Your task to perform on an android device: toggle javascript in the chrome app Image 0: 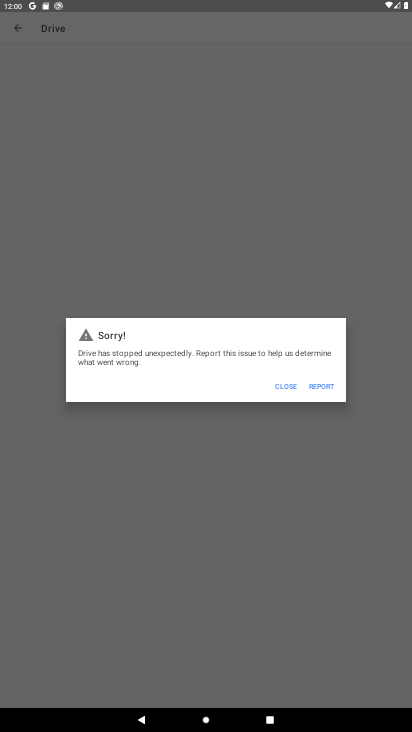
Step 0: press home button
Your task to perform on an android device: toggle javascript in the chrome app Image 1: 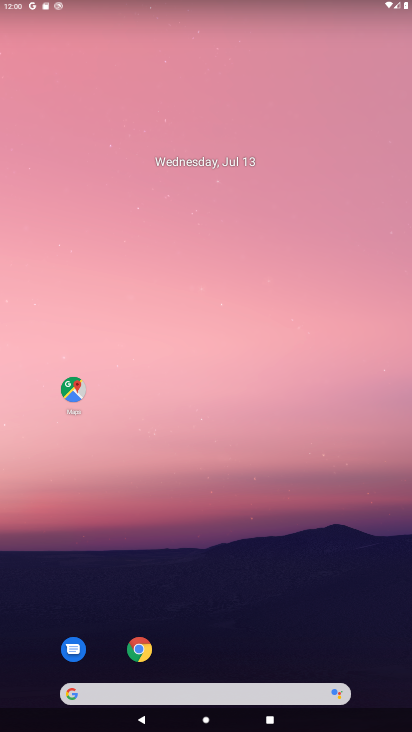
Step 1: click (329, 290)
Your task to perform on an android device: toggle javascript in the chrome app Image 2: 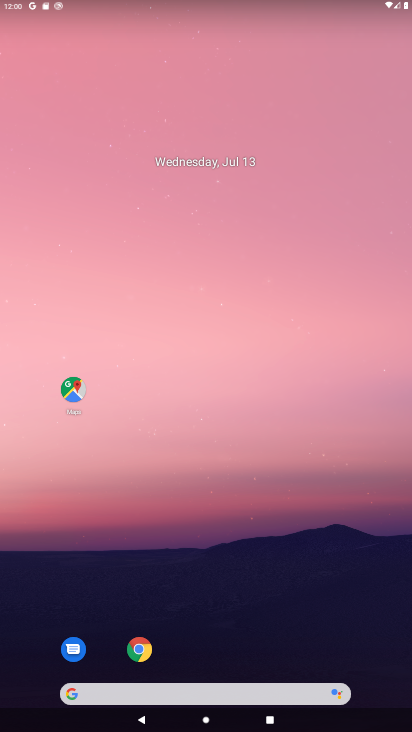
Step 2: drag from (184, 642) to (287, 82)
Your task to perform on an android device: toggle javascript in the chrome app Image 3: 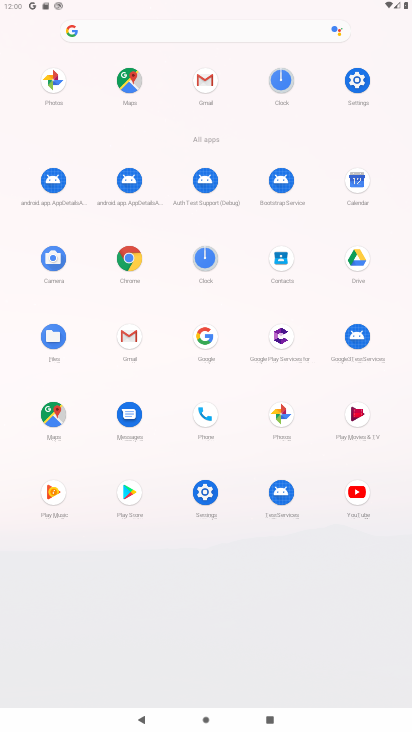
Step 3: click (134, 256)
Your task to perform on an android device: toggle javascript in the chrome app Image 4: 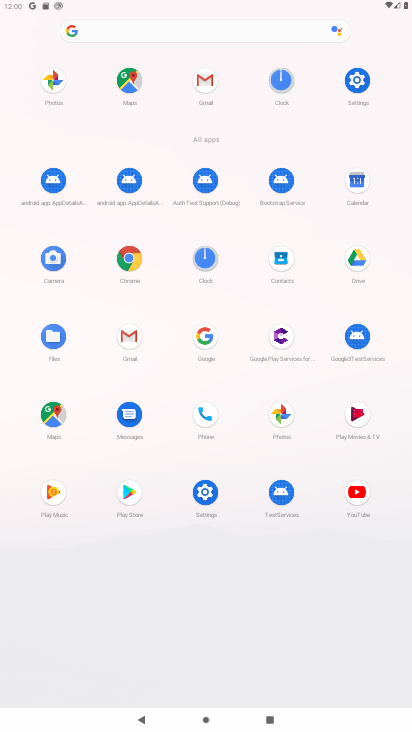
Step 4: click (123, 262)
Your task to perform on an android device: toggle javascript in the chrome app Image 5: 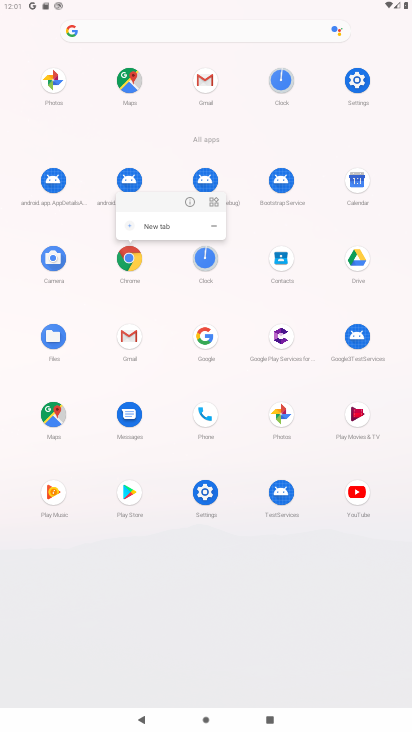
Step 5: click (183, 200)
Your task to perform on an android device: toggle javascript in the chrome app Image 6: 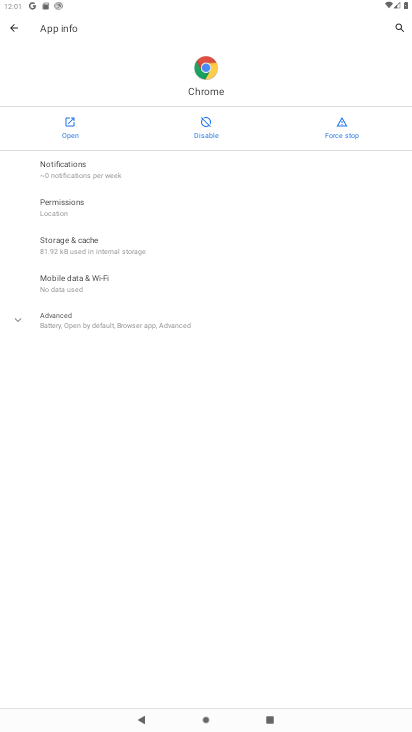
Step 6: click (71, 126)
Your task to perform on an android device: toggle javascript in the chrome app Image 7: 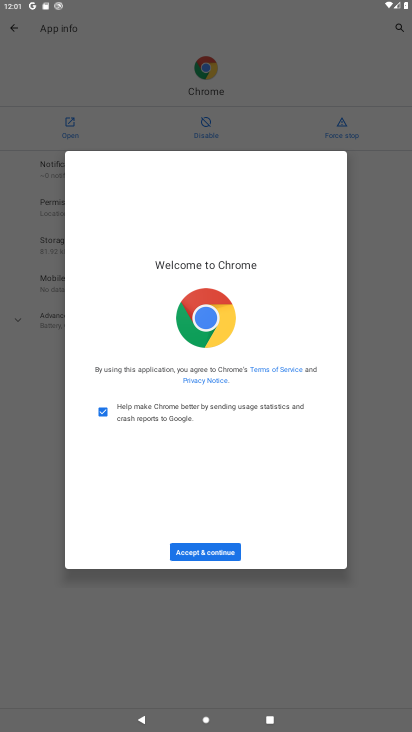
Step 7: press home button
Your task to perform on an android device: toggle javascript in the chrome app Image 8: 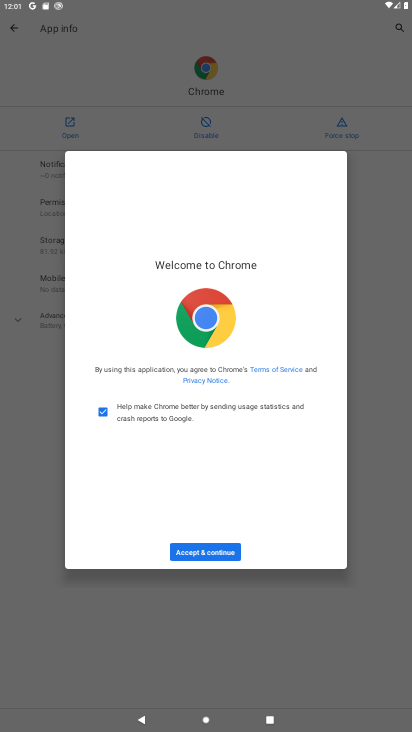
Step 8: press home button
Your task to perform on an android device: toggle javascript in the chrome app Image 9: 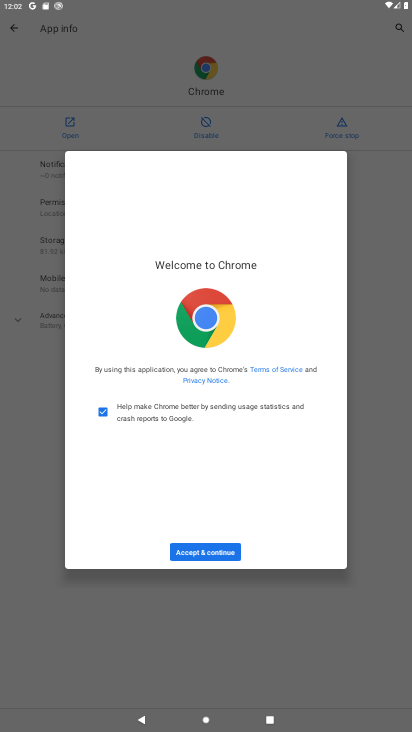
Step 9: drag from (275, 405) to (301, 153)
Your task to perform on an android device: toggle javascript in the chrome app Image 10: 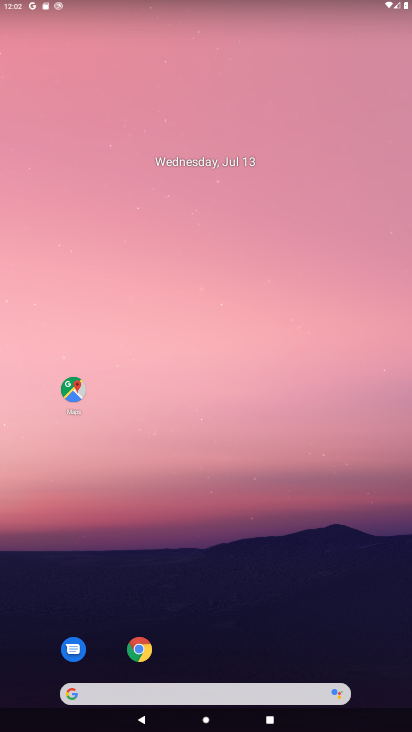
Step 10: drag from (192, 621) to (219, 231)
Your task to perform on an android device: toggle javascript in the chrome app Image 11: 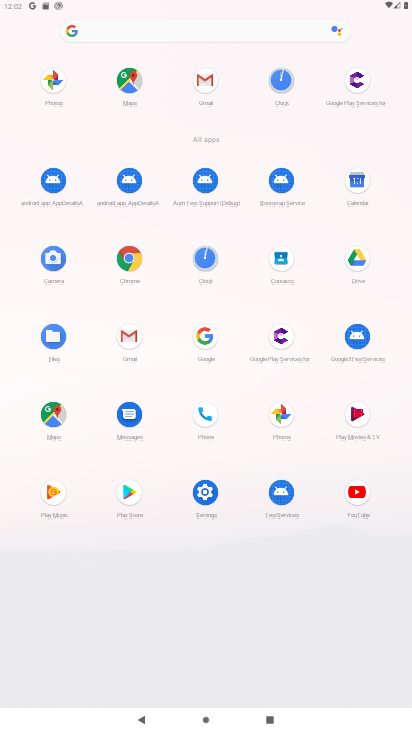
Step 11: click (126, 272)
Your task to perform on an android device: toggle javascript in the chrome app Image 12: 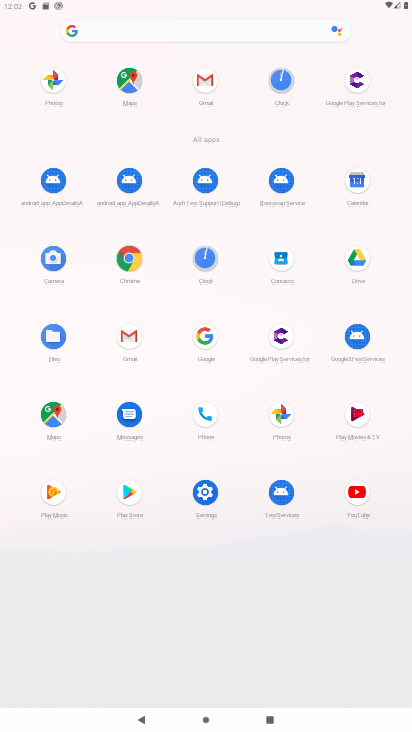
Step 12: click (124, 263)
Your task to perform on an android device: toggle javascript in the chrome app Image 13: 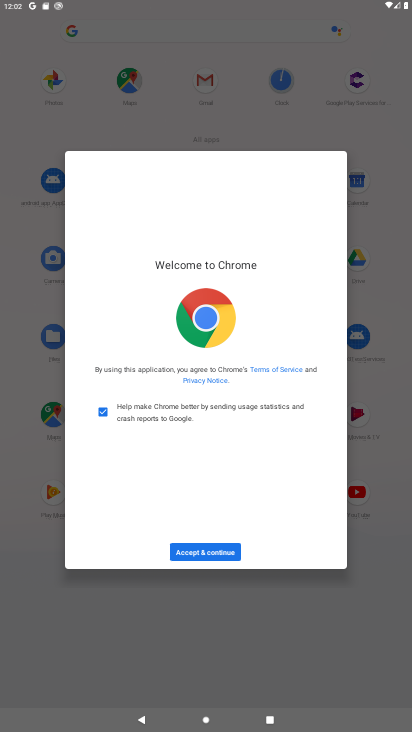
Step 13: press home button
Your task to perform on an android device: toggle javascript in the chrome app Image 14: 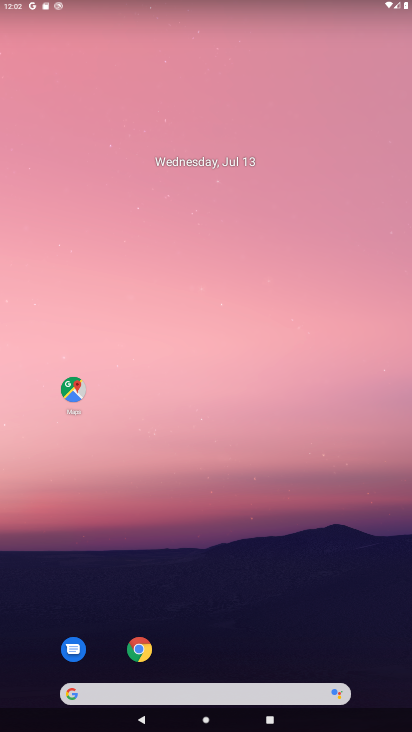
Step 14: drag from (298, 445) to (393, 95)
Your task to perform on an android device: toggle javascript in the chrome app Image 15: 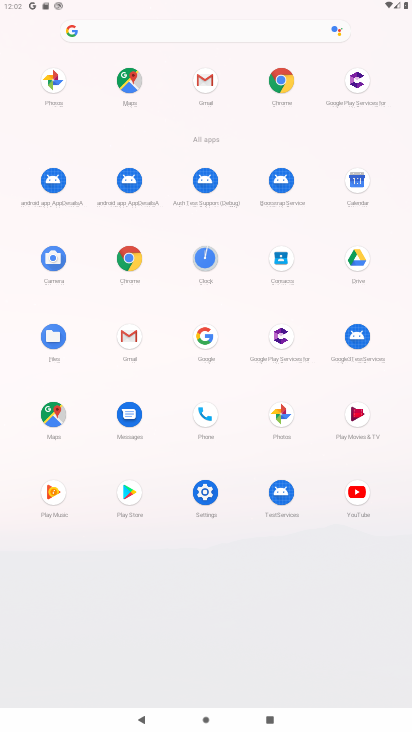
Step 15: click (129, 254)
Your task to perform on an android device: toggle javascript in the chrome app Image 16: 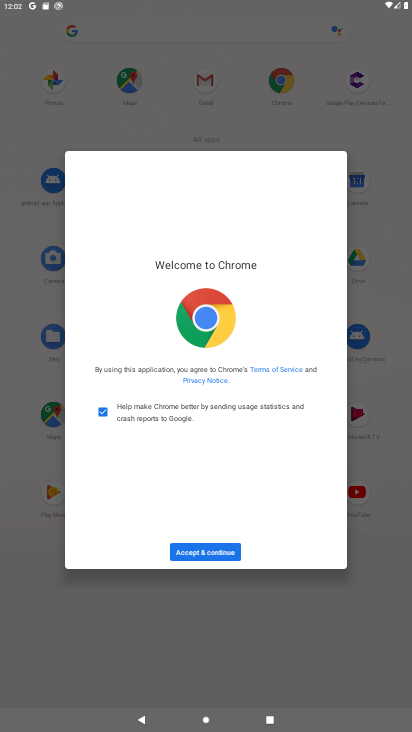
Step 16: click (209, 555)
Your task to perform on an android device: toggle javascript in the chrome app Image 17: 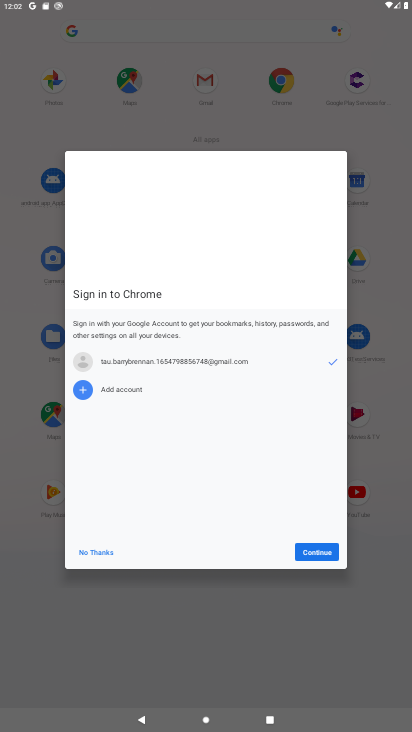
Step 17: click (314, 557)
Your task to perform on an android device: toggle javascript in the chrome app Image 18: 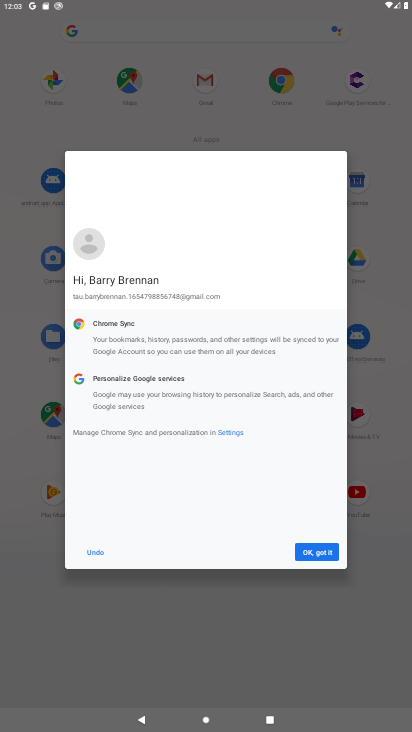
Step 18: click (326, 551)
Your task to perform on an android device: toggle javascript in the chrome app Image 19: 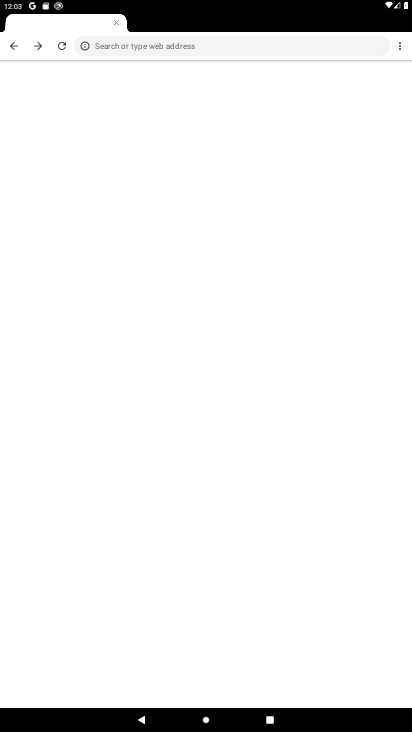
Step 19: drag from (248, 548) to (365, 180)
Your task to perform on an android device: toggle javascript in the chrome app Image 20: 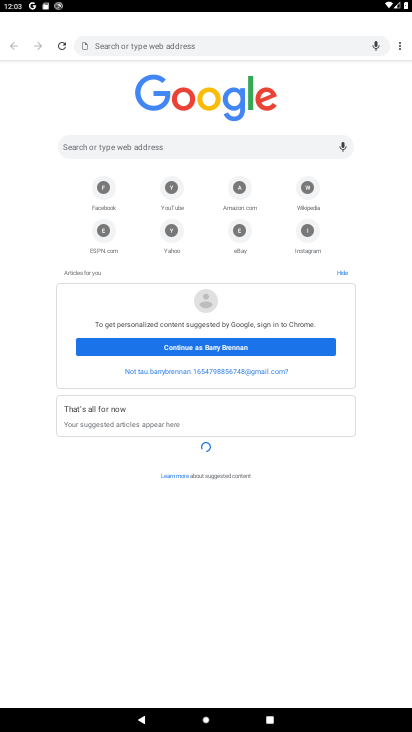
Step 20: drag from (199, 571) to (261, 246)
Your task to perform on an android device: toggle javascript in the chrome app Image 21: 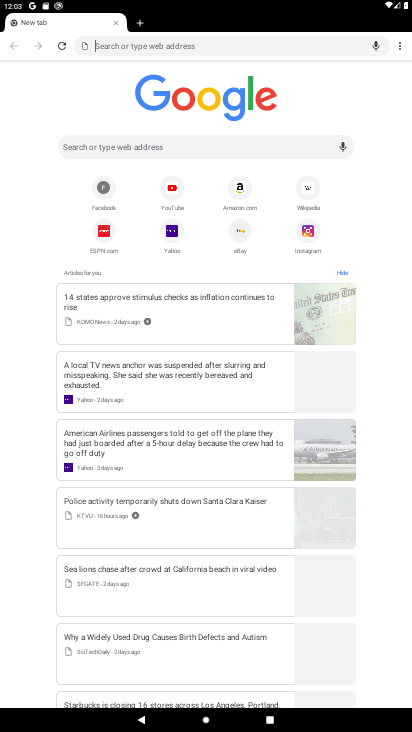
Step 21: click (403, 42)
Your task to perform on an android device: toggle javascript in the chrome app Image 22: 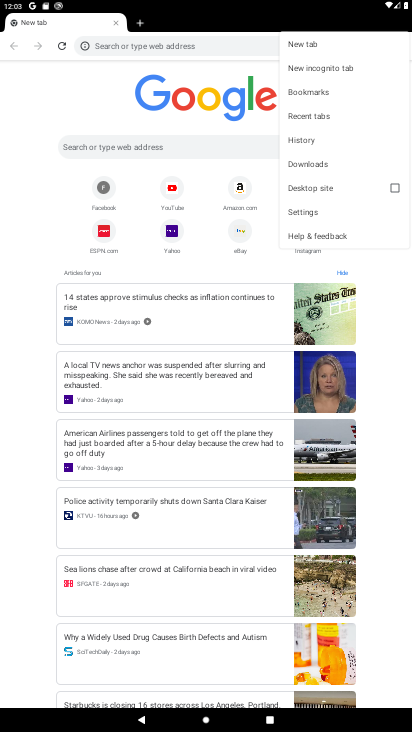
Step 22: click (302, 210)
Your task to perform on an android device: toggle javascript in the chrome app Image 23: 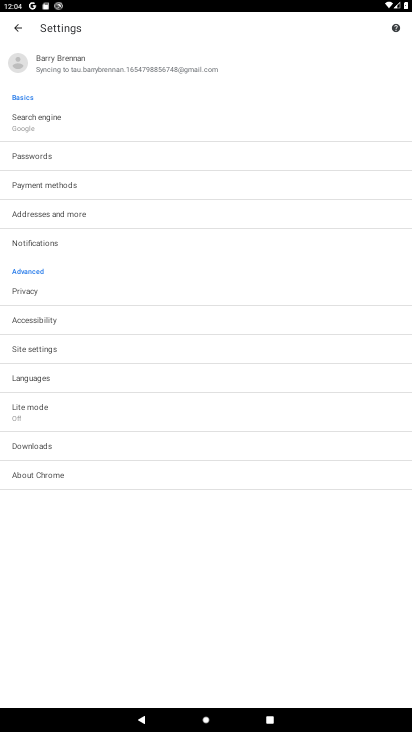
Step 23: drag from (188, 540) to (197, 237)
Your task to perform on an android device: toggle javascript in the chrome app Image 24: 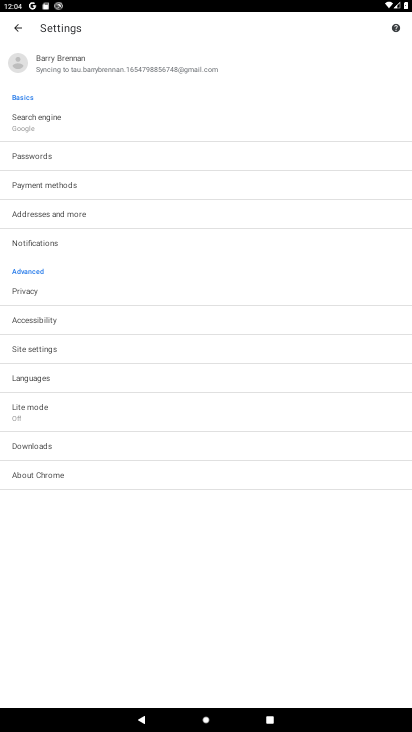
Step 24: click (71, 345)
Your task to perform on an android device: toggle javascript in the chrome app Image 25: 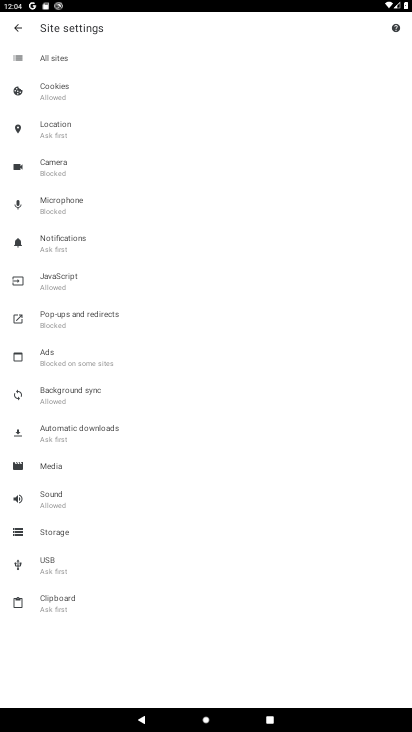
Step 25: click (104, 277)
Your task to perform on an android device: toggle javascript in the chrome app Image 26: 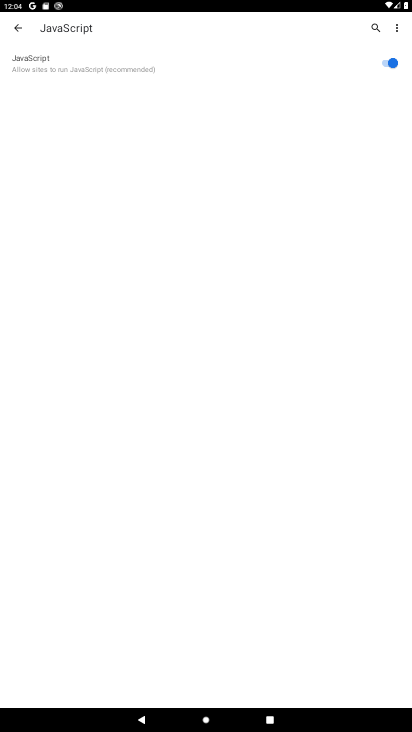
Step 26: drag from (183, 485) to (247, 219)
Your task to perform on an android device: toggle javascript in the chrome app Image 27: 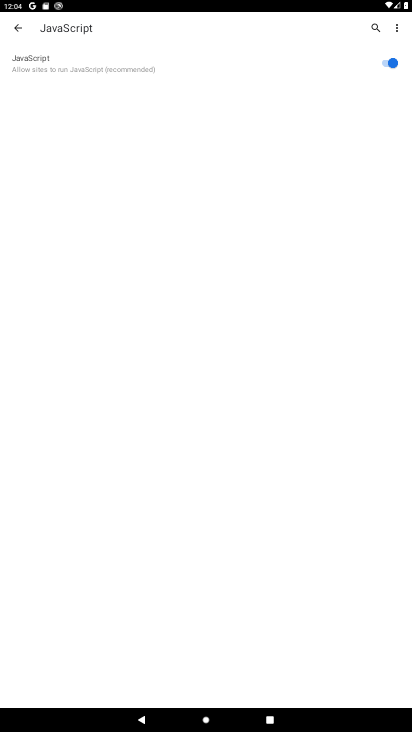
Step 27: drag from (171, 472) to (214, 160)
Your task to perform on an android device: toggle javascript in the chrome app Image 28: 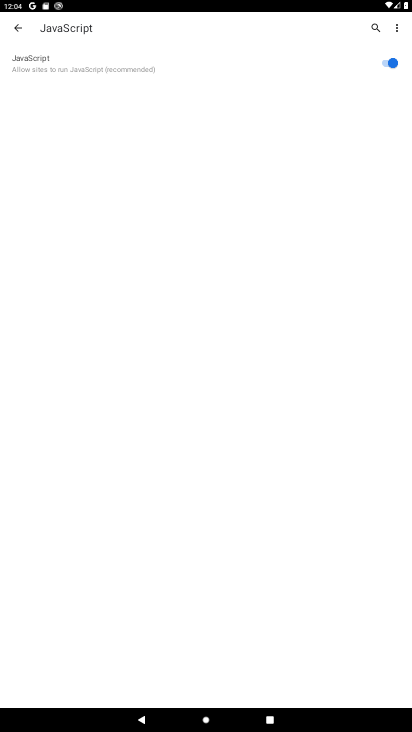
Step 28: drag from (195, 408) to (240, 122)
Your task to perform on an android device: toggle javascript in the chrome app Image 29: 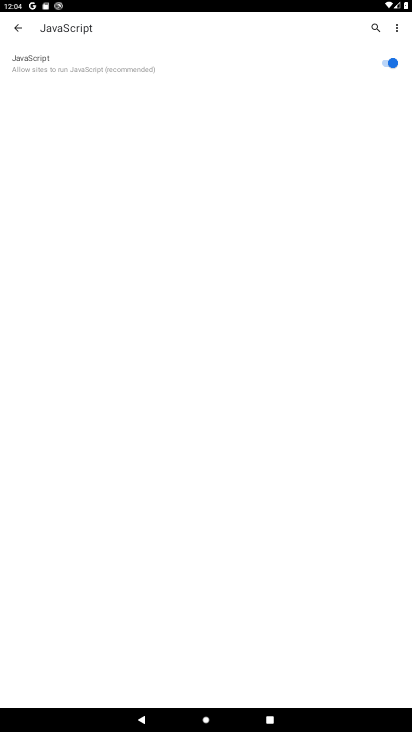
Step 29: click (326, 228)
Your task to perform on an android device: toggle javascript in the chrome app Image 30: 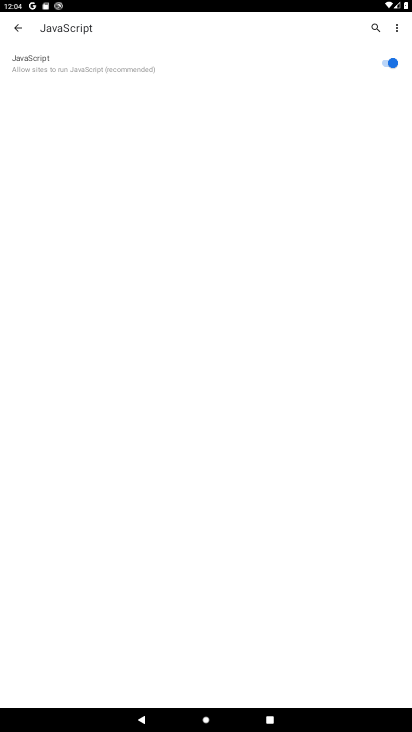
Step 30: click (388, 64)
Your task to perform on an android device: toggle javascript in the chrome app Image 31: 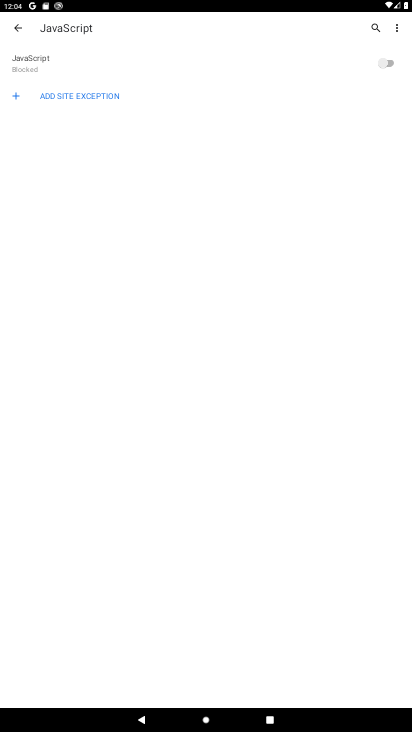
Step 31: task complete